Your task to perform on an android device: toggle javascript in the chrome app Image 0: 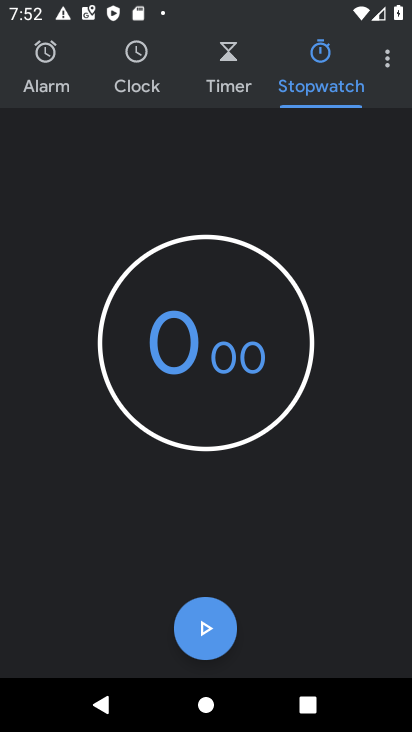
Step 0: press home button
Your task to perform on an android device: toggle javascript in the chrome app Image 1: 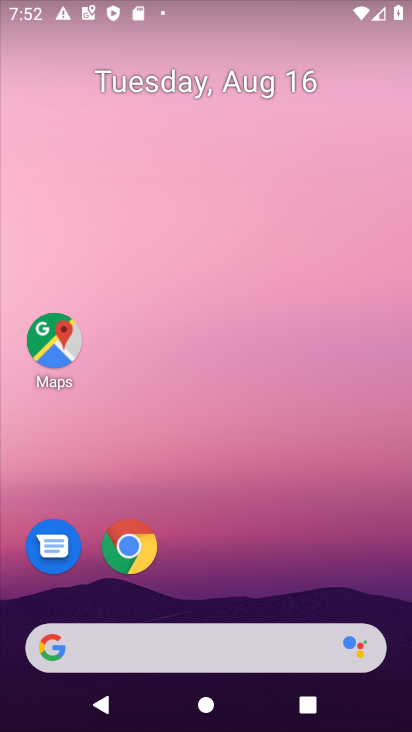
Step 1: click (131, 544)
Your task to perform on an android device: toggle javascript in the chrome app Image 2: 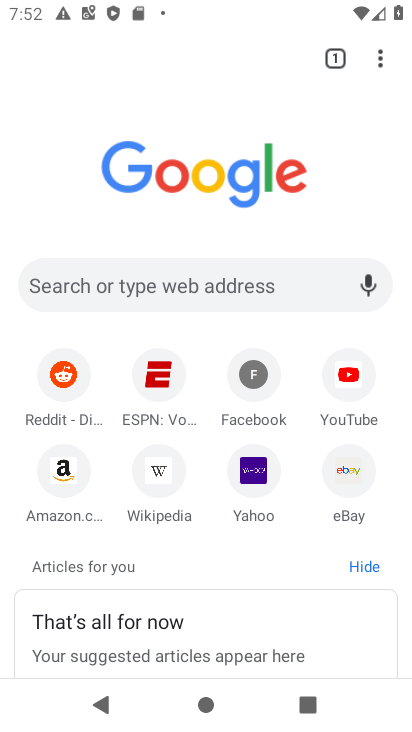
Step 2: click (379, 65)
Your task to perform on an android device: toggle javascript in the chrome app Image 3: 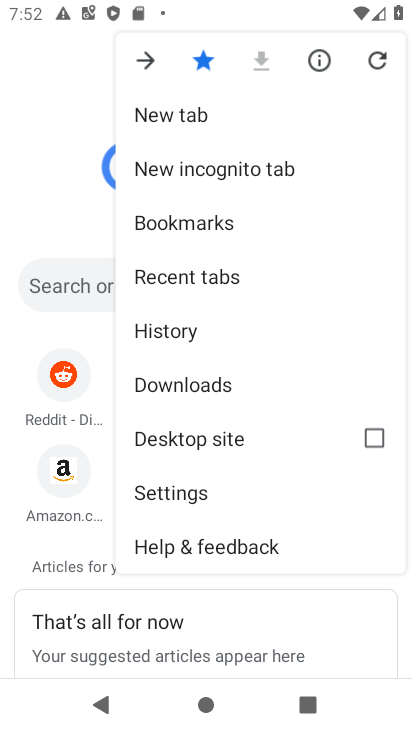
Step 3: click (204, 488)
Your task to perform on an android device: toggle javascript in the chrome app Image 4: 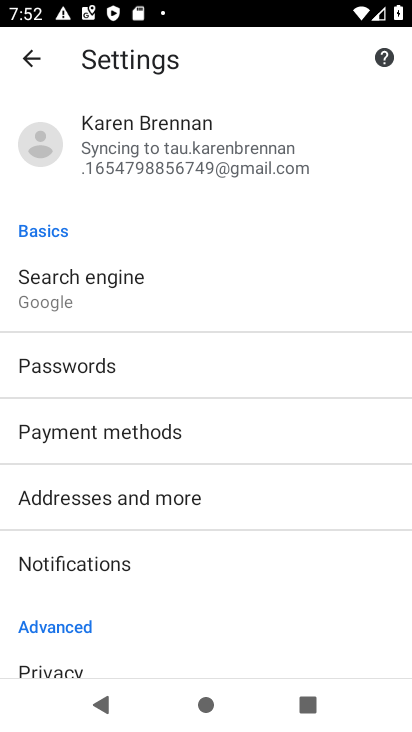
Step 4: drag from (243, 480) to (230, 70)
Your task to perform on an android device: toggle javascript in the chrome app Image 5: 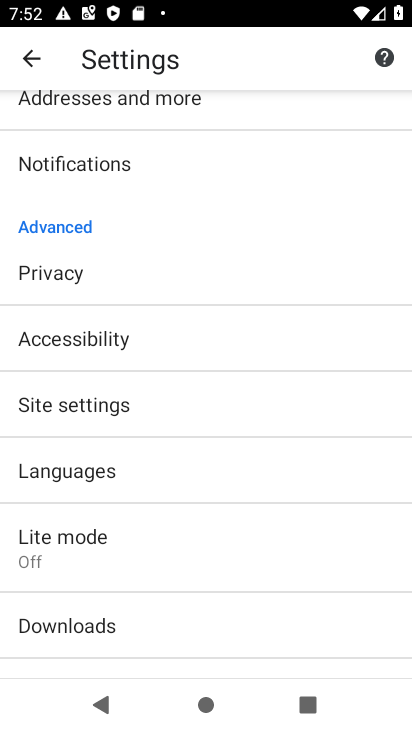
Step 5: click (204, 415)
Your task to perform on an android device: toggle javascript in the chrome app Image 6: 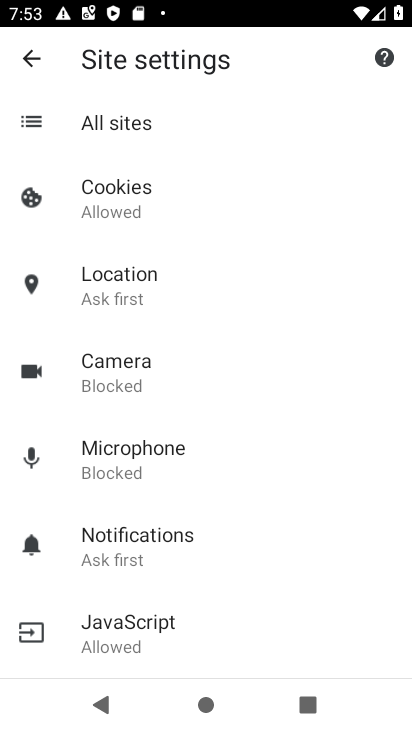
Step 6: click (172, 619)
Your task to perform on an android device: toggle javascript in the chrome app Image 7: 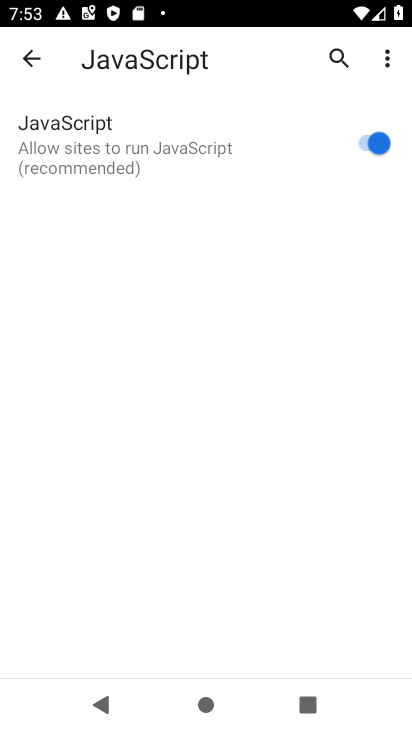
Step 7: click (363, 130)
Your task to perform on an android device: toggle javascript in the chrome app Image 8: 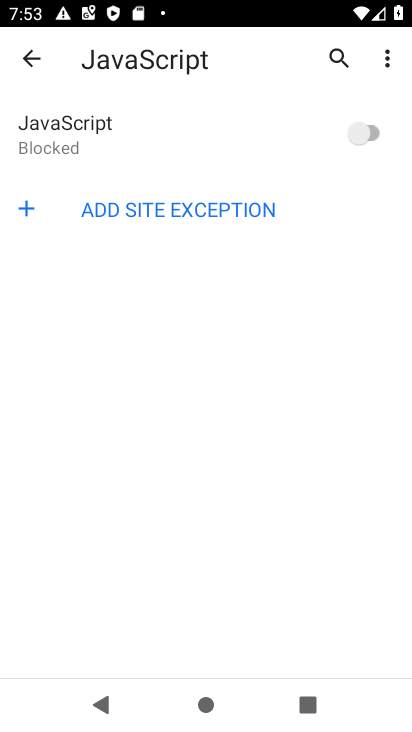
Step 8: task complete